Your task to perform on an android device: Go to eBay Image 0: 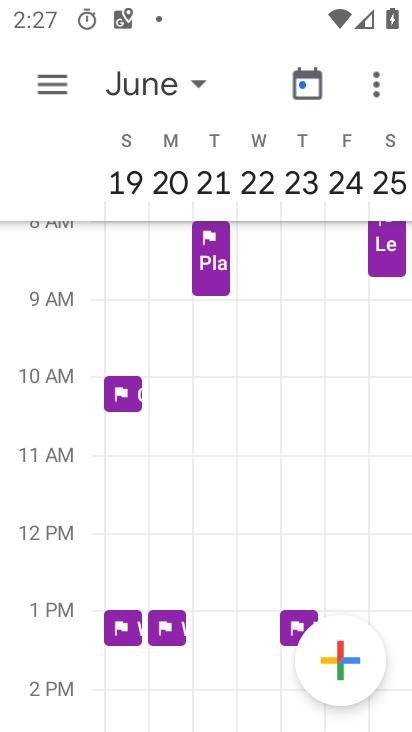
Step 0: press home button
Your task to perform on an android device: Go to eBay Image 1: 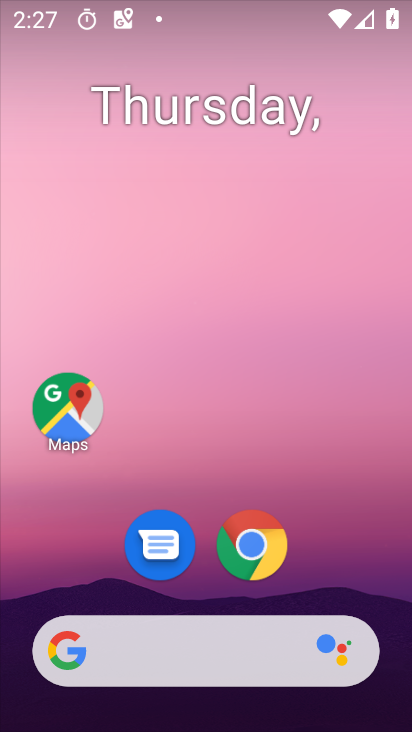
Step 1: click (255, 544)
Your task to perform on an android device: Go to eBay Image 2: 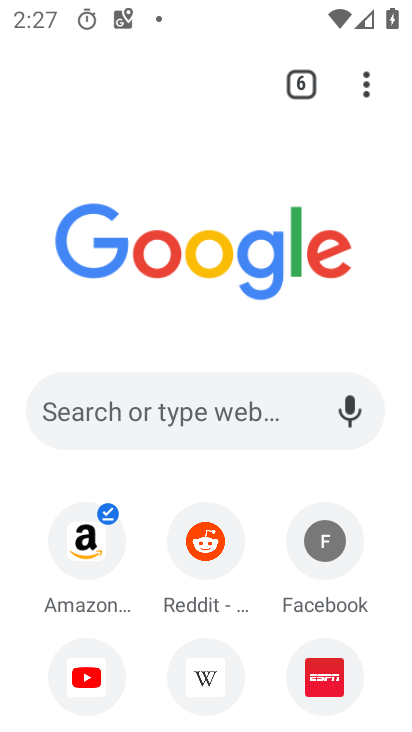
Step 2: drag from (229, 634) to (251, 359)
Your task to perform on an android device: Go to eBay Image 3: 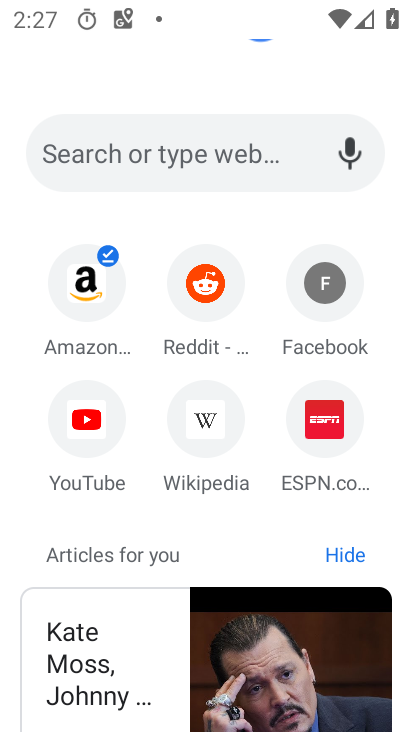
Step 3: click (209, 152)
Your task to perform on an android device: Go to eBay Image 4: 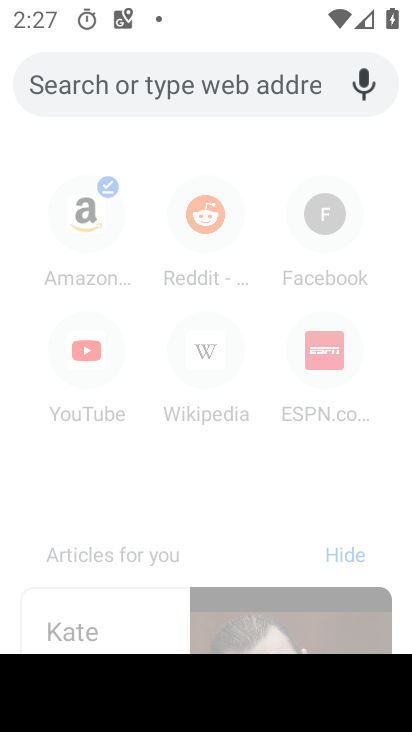
Step 4: type "ebay"
Your task to perform on an android device: Go to eBay Image 5: 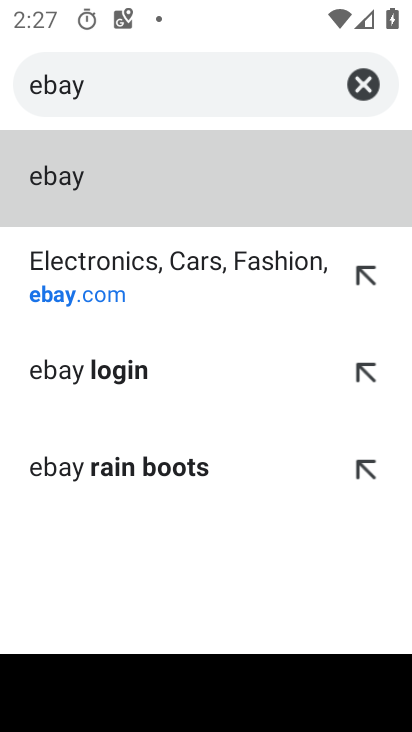
Step 5: click (145, 182)
Your task to perform on an android device: Go to eBay Image 6: 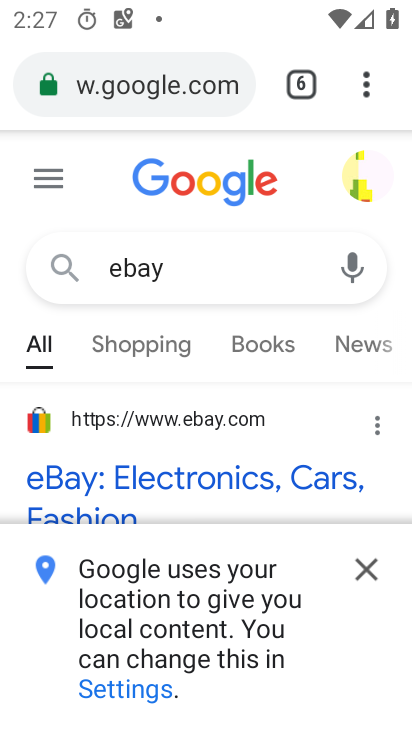
Step 6: click (155, 468)
Your task to perform on an android device: Go to eBay Image 7: 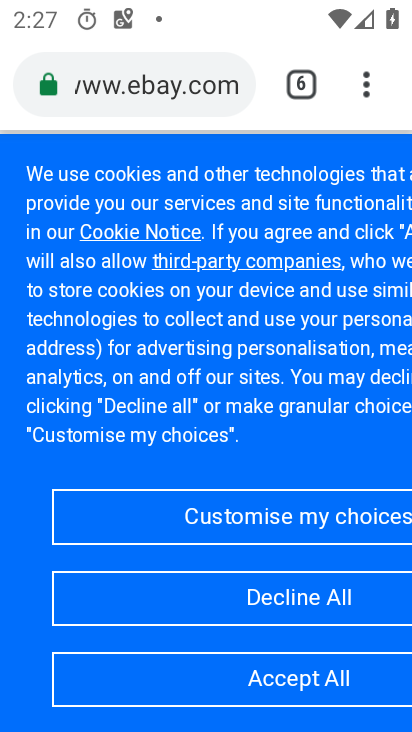
Step 7: task complete